Your task to perform on an android device: Empty the shopping cart on walmart. Search for usb-a to usb-b on walmart, select the first entry, and add it to the cart. Image 0: 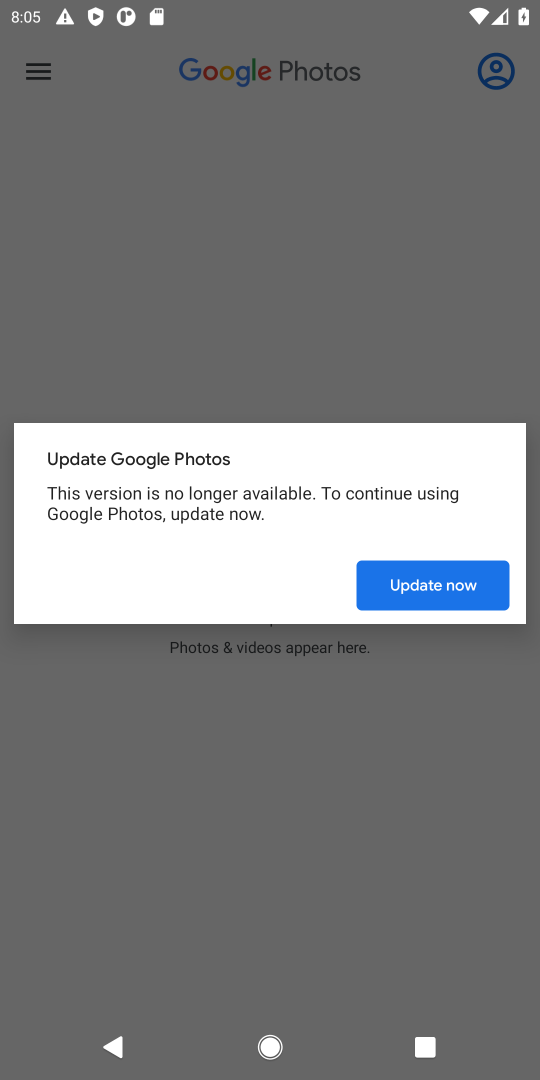
Step 0: press home button
Your task to perform on an android device: Empty the shopping cart on walmart. Search for usb-a to usb-b on walmart, select the first entry, and add it to the cart. Image 1: 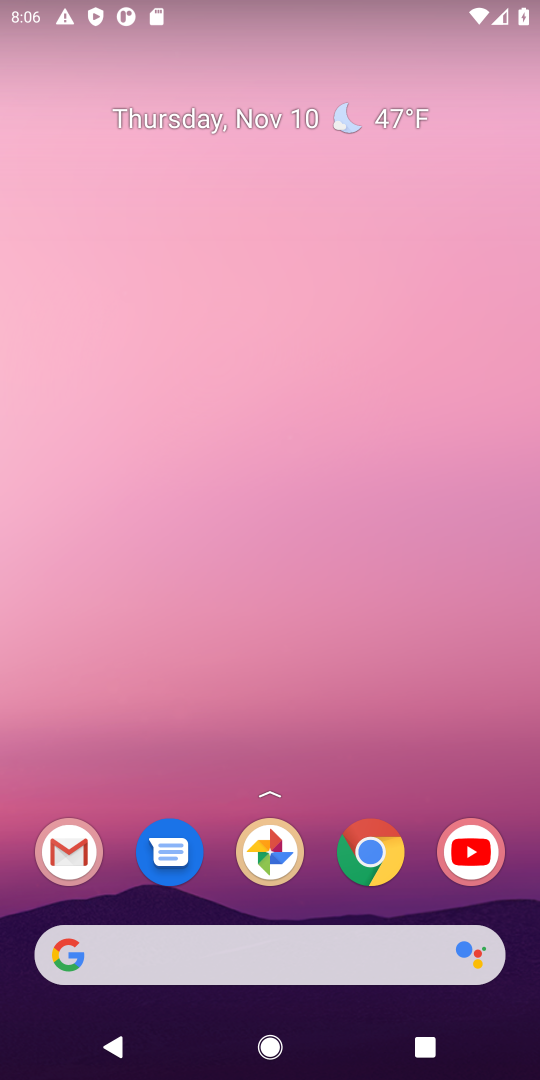
Step 1: click (375, 868)
Your task to perform on an android device: Empty the shopping cart on walmart. Search for usb-a to usb-b on walmart, select the first entry, and add it to the cart. Image 2: 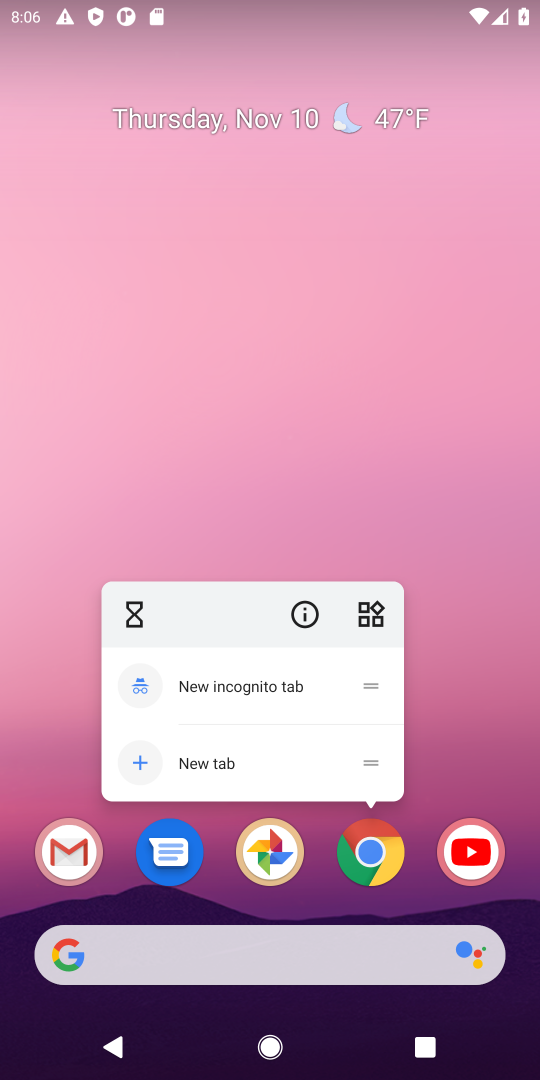
Step 2: click (377, 868)
Your task to perform on an android device: Empty the shopping cart on walmart. Search for usb-a to usb-b on walmart, select the first entry, and add it to the cart. Image 3: 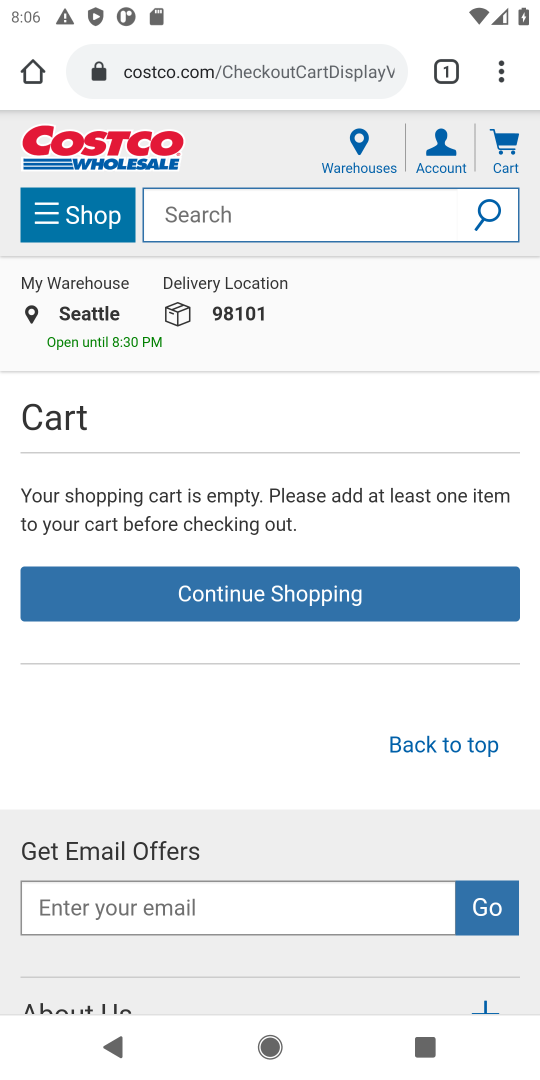
Step 3: click (260, 64)
Your task to perform on an android device: Empty the shopping cart on walmart. Search for usb-a to usb-b on walmart, select the first entry, and add it to the cart. Image 4: 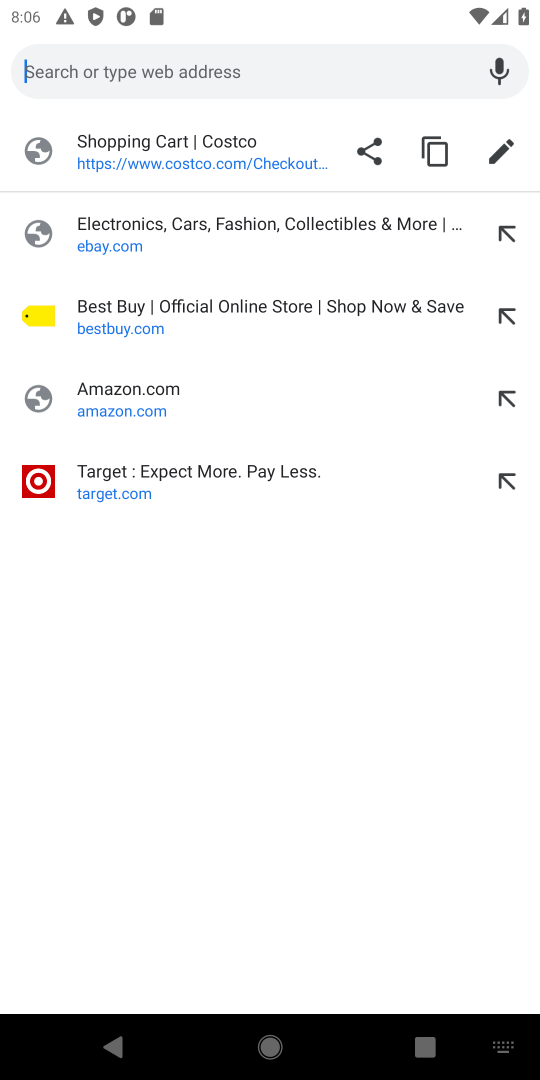
Step 4: type " walmart"
Your task to perform on an android device: Empty the shopping cart on walmart. Search for usb-a to usb-b on walmart, select the first entry, and add it to the cart. Image 5: 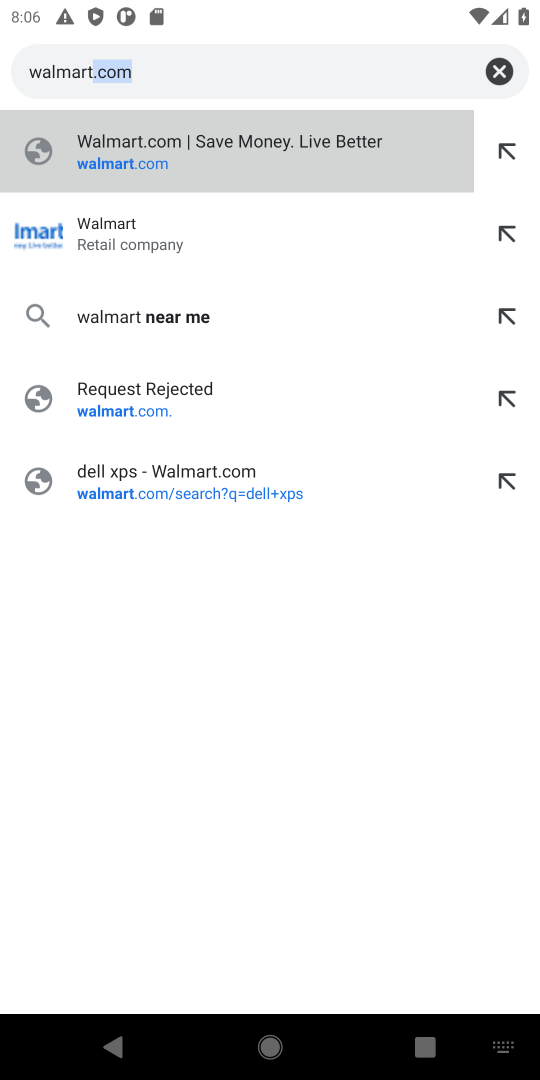
Step 5: press enter
Your task to perform on an android device: Empty the shopping cart on walmart. Search for usb-a to usb-b on walmart, select the first entry, and add it to the cart. Image 6: 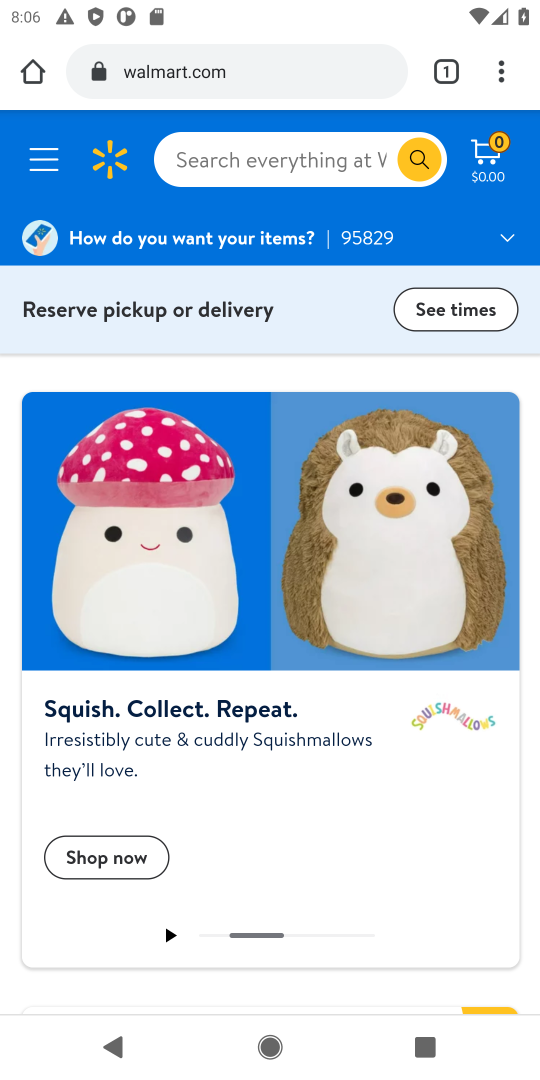
Step 6: click (292, 155)
Your task to perform on an android device: Empty the shopping cart on walmart. Search for usb-a to usb-b on walmart, select the first entry, and add it to the cart. Image 7: 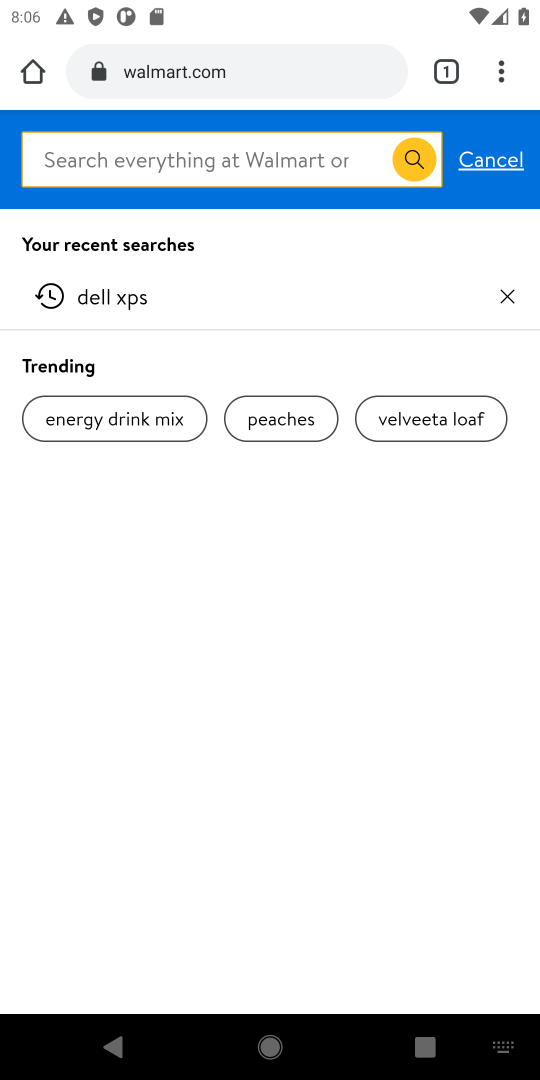
Step 7: type " usb-a to usb-b"
Your task to perform on an android device: Empty the shopping cart on walmart. Search for usb-a to usb-b on walmart, select the first entry, and add it to the cart. Image 8: 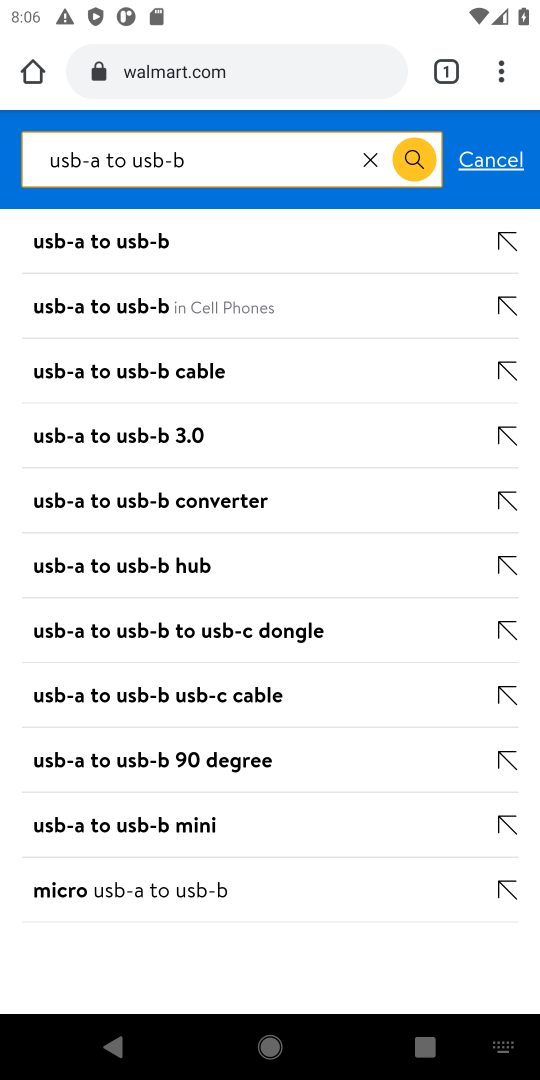
Step 8: press enter
Your task to perform on an android device: Empty the shopping cart on walmart. Search for usb-a to usb-b on walmart, select the first entry, and add it to the cart. Image 9: 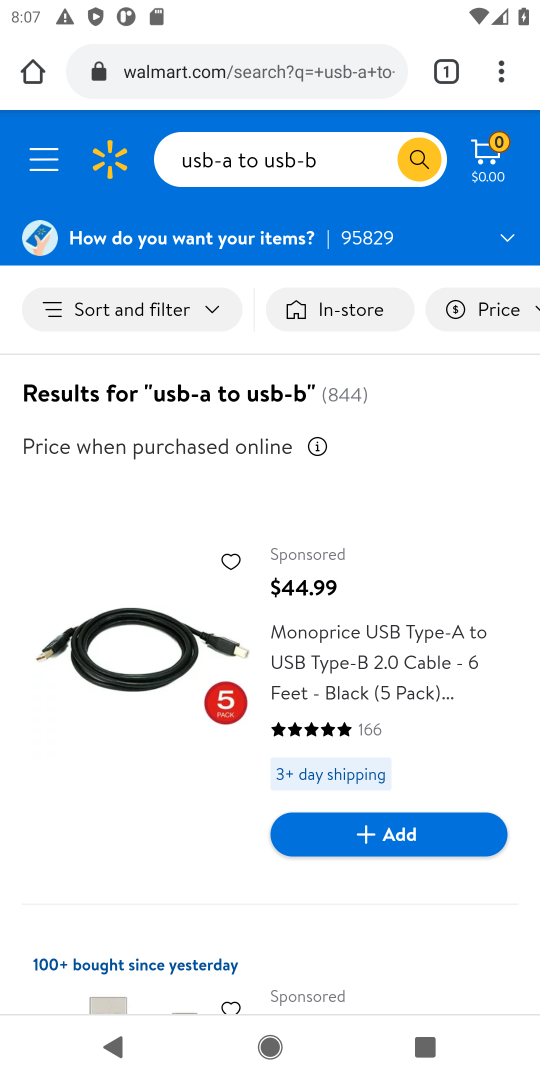
Step 9: click (400, 838)
Your task to perform on an android device: Empty the shopping cart on walmart. Search for usb-a to usb-b on walmart, select the first entry, and add it to the cart. Image 10: 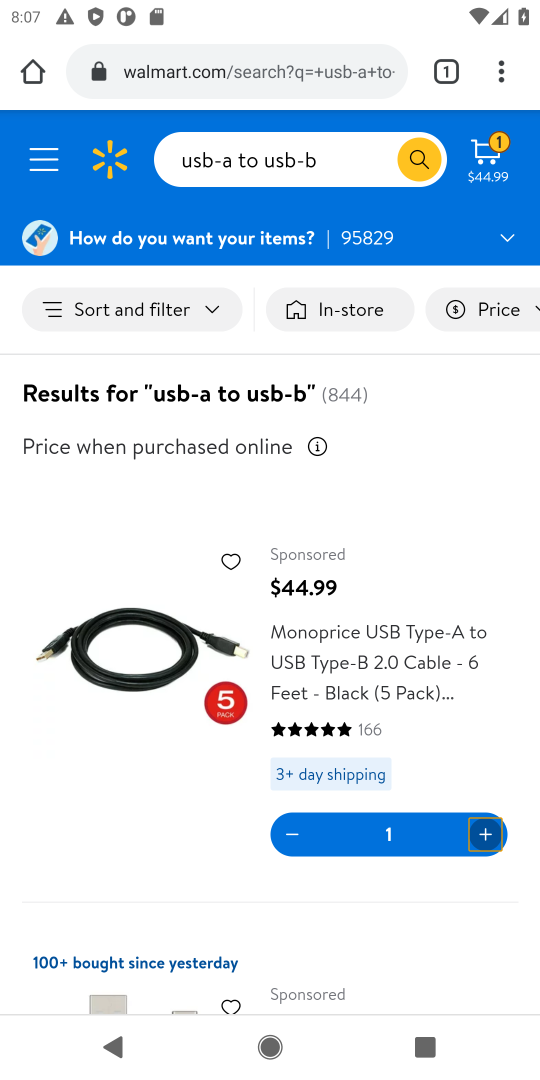
Step 10: click (488, 152)
Your task to perform on an android device: Empty the shopping cart on walmart. Search for usb-a to usb-b on walmart, select the first entry, and add it to the cart. Image 11: 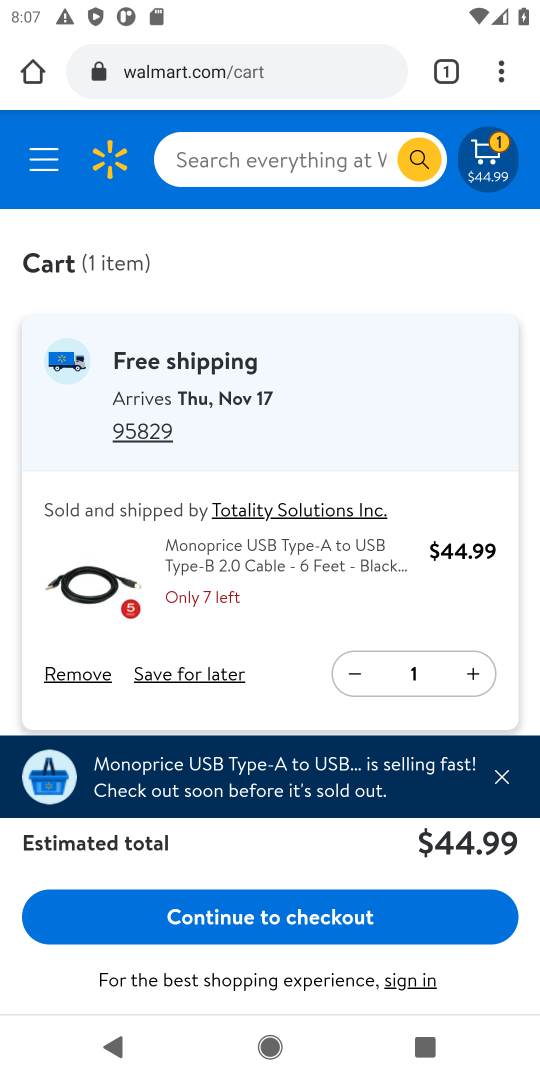
Step 11: task complete